Your task to perform on an android device: turn off sleep mode Image 0: 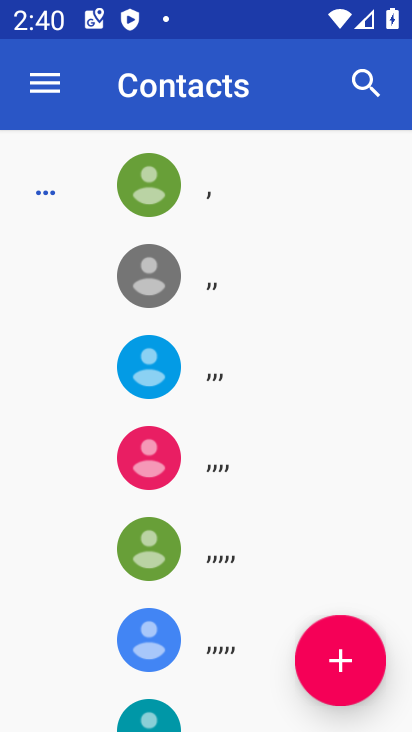
Step 0: press home button
Your task to perform on an android device: turn off sleep mode Image 1: 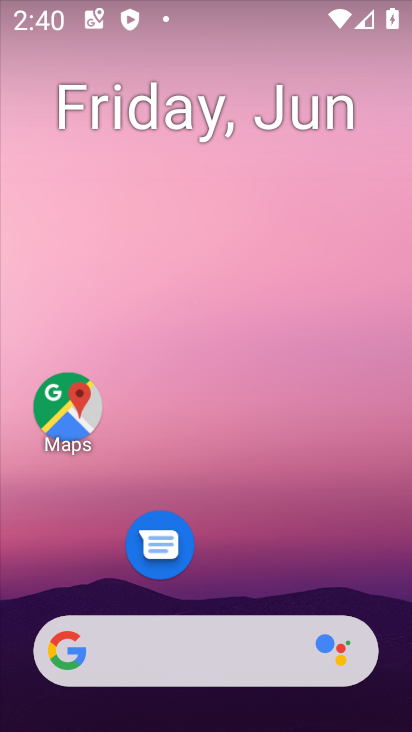
Step 1: drag from (262, 564) to (270, 13)
Your task to perform on an android device: turn off sleep mode Image 2: 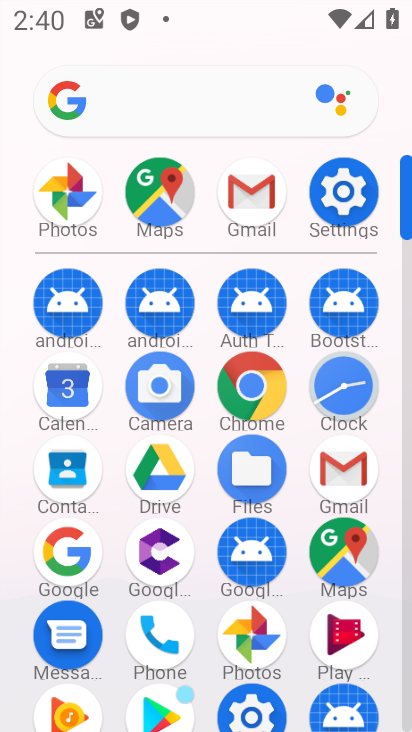
Step 2: click (348, 212)
Your task to perform on an android device: turn off sleep mode Image 3: 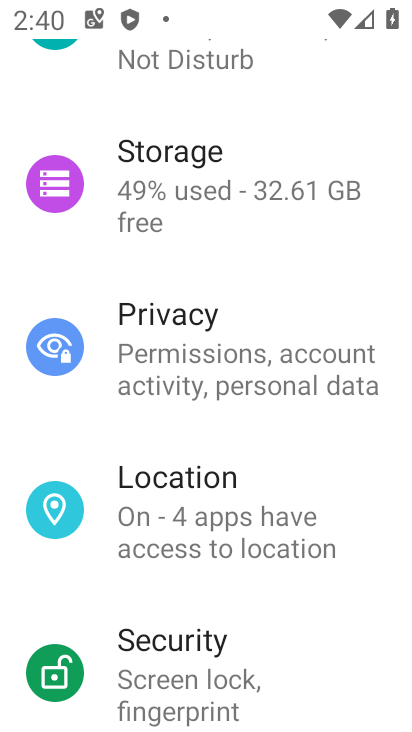
Step 3: drag from (188, 128) to (139, 605)
Your task to perform on an android device: turn off sleep mode Image 4: 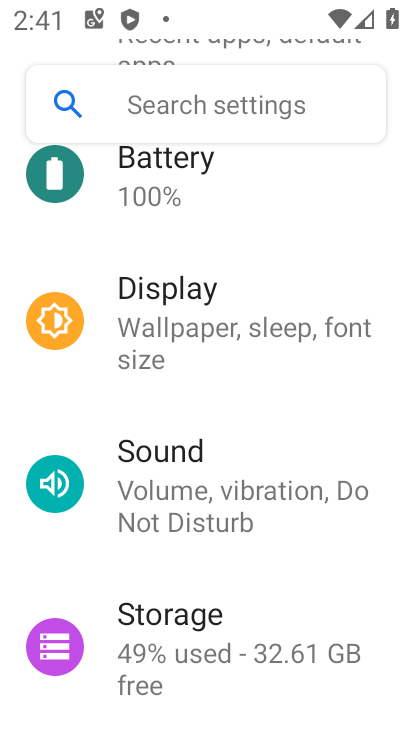
Step 4: click (203, 111)
Your task to perform on an android device: turn off sleep mode Image 5: 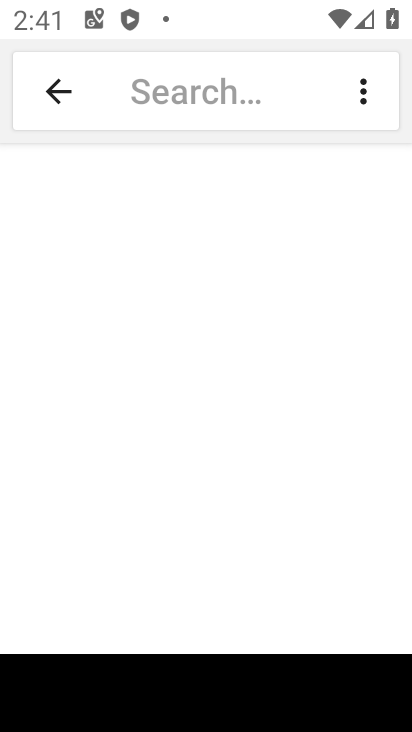
Step 5: type "sleep mode"
Your task to perform on an android device: turn off sleep mode Image 6: 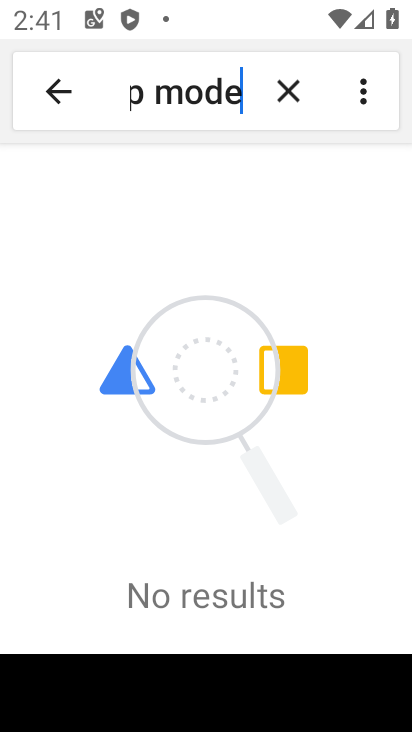
Step 6: task complete